Your task to perform on an android device: Go to location settings Image 0: 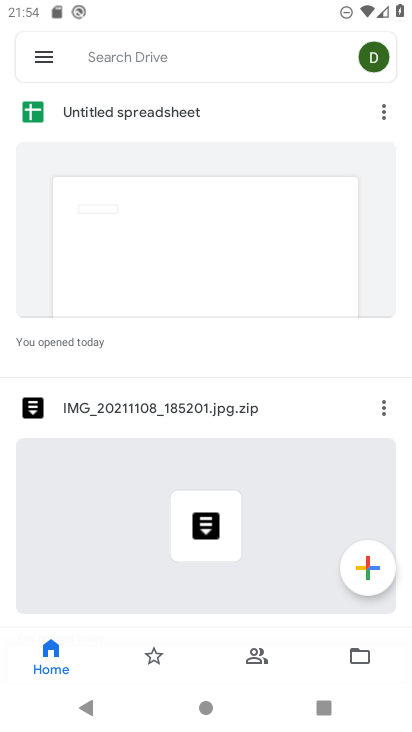
Step 0: press home button
Your task to perform on an android device: Go to location settings Image 1: 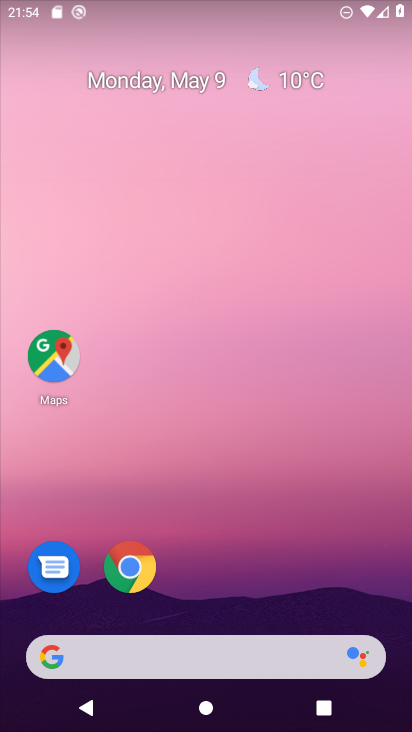
Step 1: drag from (265, 487) to (283, 78)
Your task to perform on an android device: Go to location settings Image 2: 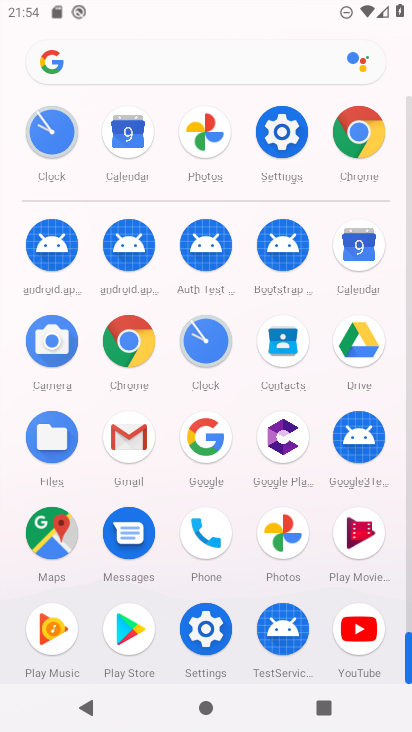
Step 2: click (283, 141)
Your task to perform on an android device: Go to location settings Image 3: 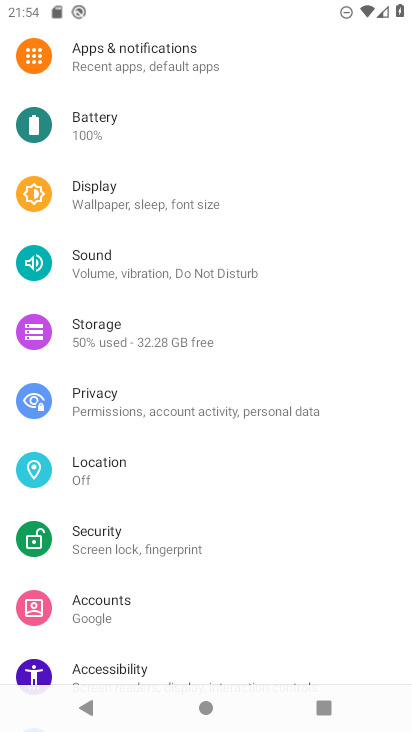
Step 3: click (163, 478)
Your task to perform on an android device: Go to location settings Image 4: 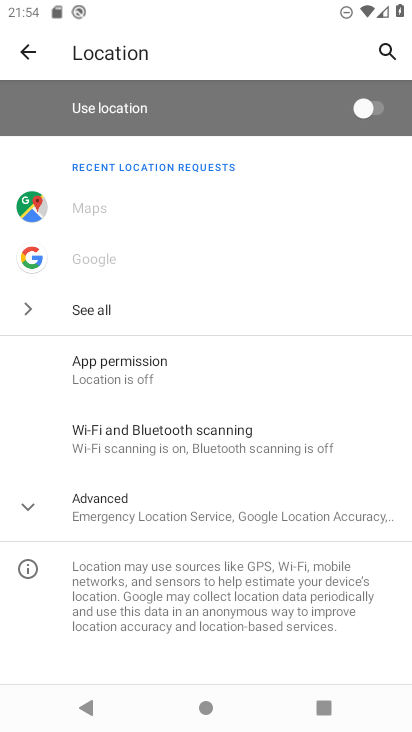
Step 4: task complete